Your task to perform on an android device: Open calendar and show me the fourth week of next month Image 0: 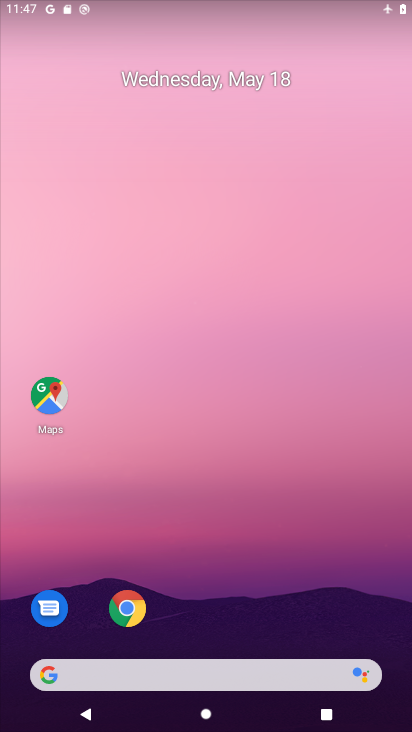
Step 0: drag from (209, 631) to (137, 187)
Your task to perform on an android device: Open calendar and show me the fourth week of next month Image 1: 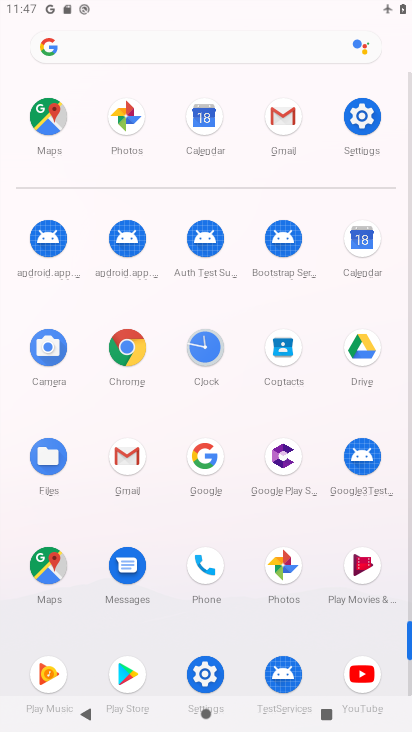
Step 1: click (365, 241)
Your task to perform on an android device: Open calendar and show me the fourth week of next month Image 2: 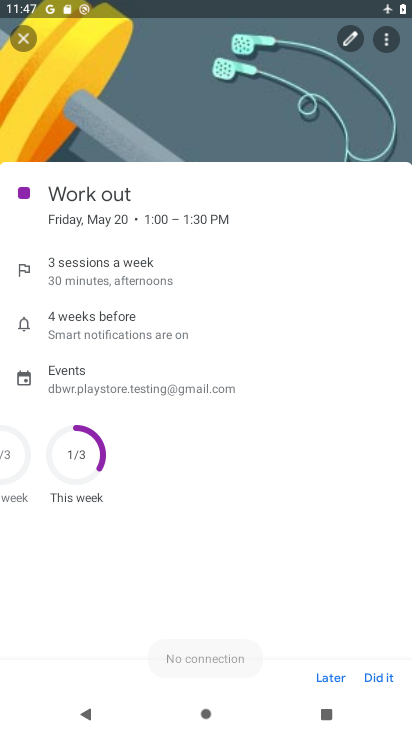
Step 2: click (35, 45)
Your task to perform on an android device: Open calendar and show me the fourth week of next month Image 3: 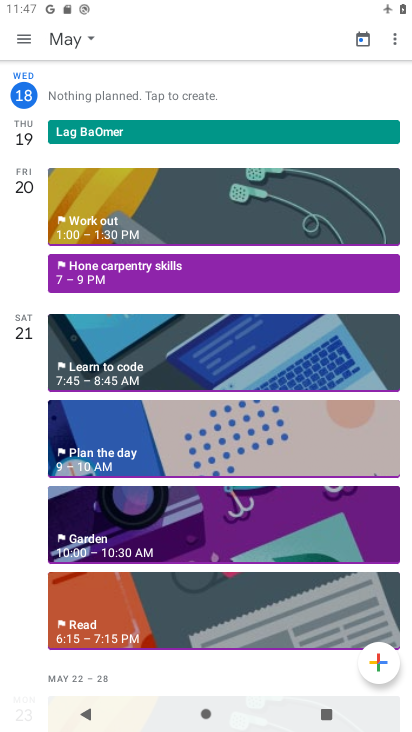
Step 3: click (76, 34)
Your task to perform on an android device: Open calendar and show me the fourth week of next month Image 4: 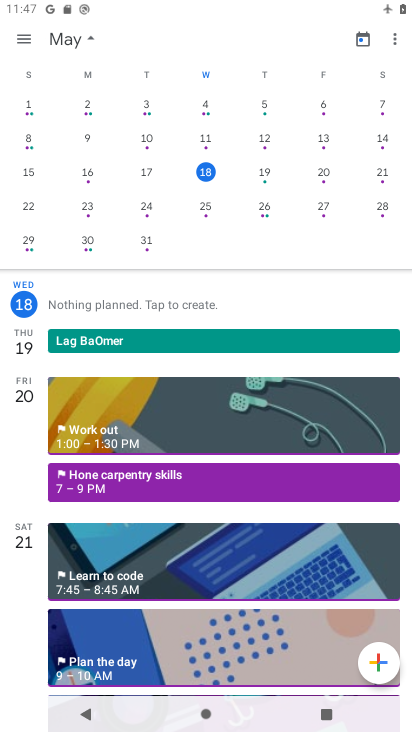
Step 4: drag from (358, 200) to (19, 168)
Your task to perform on an android device: Open calendar and show me the fourth week of next month Image 5: 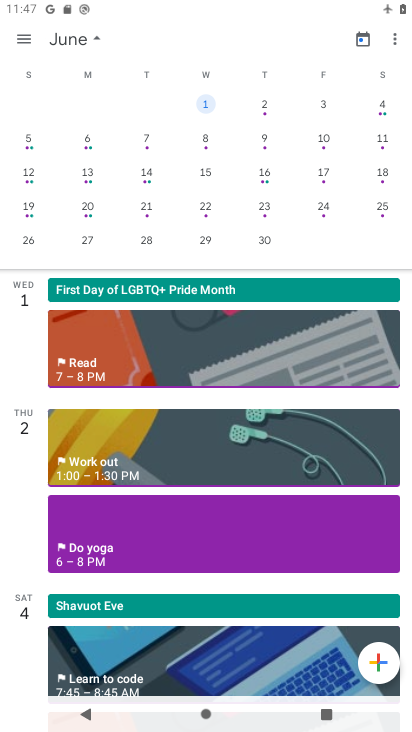
Step 5: click (29, 209)
Your task to perform on an android device: Open calendar and show me the fourth week of next month Image 6: 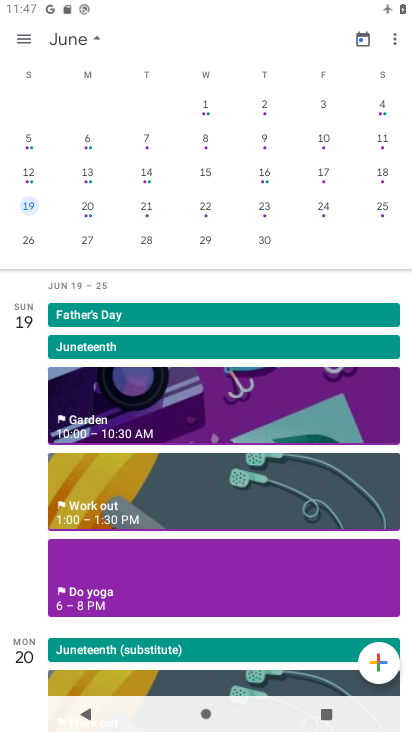
Step 6: click (71, 36)
Your task to perform on an android device: Open calendar and show me the fourth week of next month Image 7: 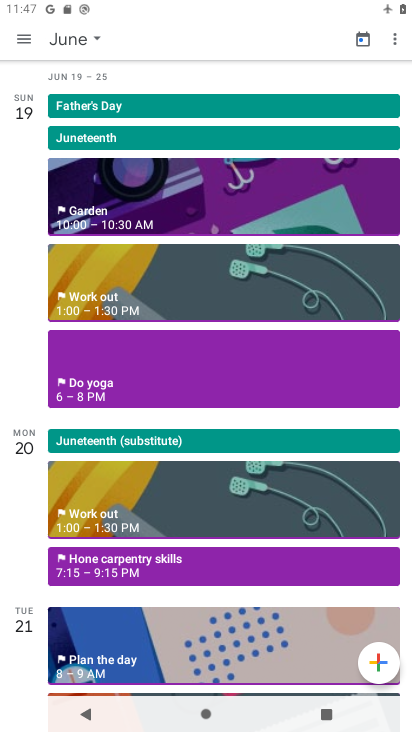
Step 7: click (20, 37)
Your task to perform on an android device: Open calendar and show me the fourth week of next month Image 8: 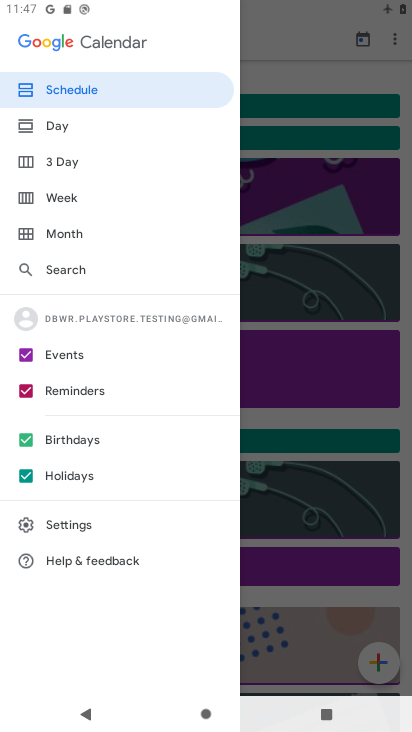
Step 8: click (51, 200)
Your task to perform on an android device: Open calendar and show me the fourth week of next month Image 9: 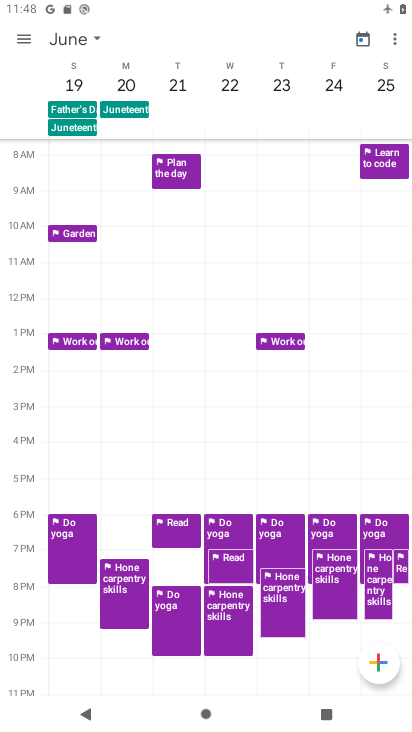
Step 9: task complete